Your task to perform on an android device: clear history in the chrome app Image 0: 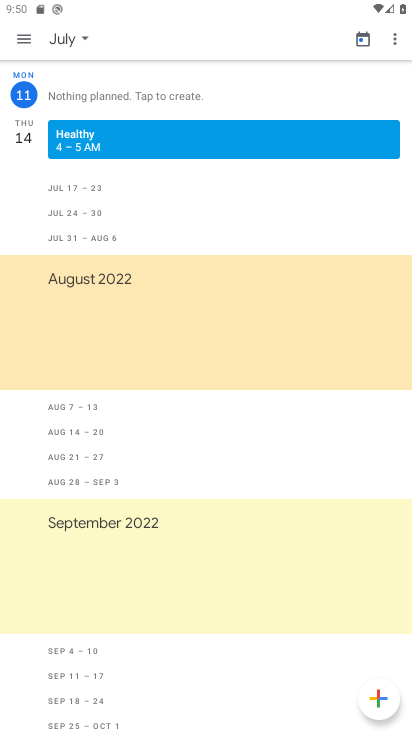
Step 0: press home button
Your task to perform on an android device: clear history in the chrome app Image 1: 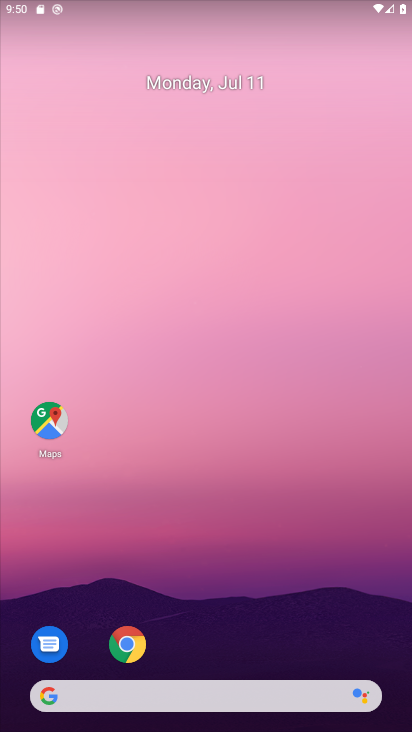
Step 1: drag from (283, 620) to (387, 79)
Your task to perform on an android device: clear history in the chrome app Image 2: 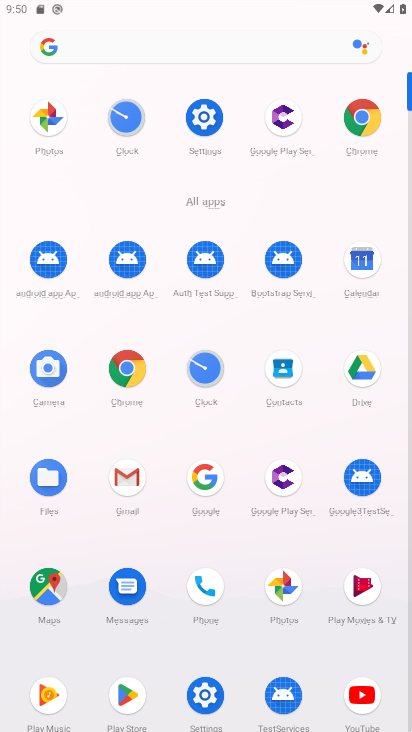
Step 2: click (122, 371)
Your task to perform on an android device: clear history in the chrome app Image 3: 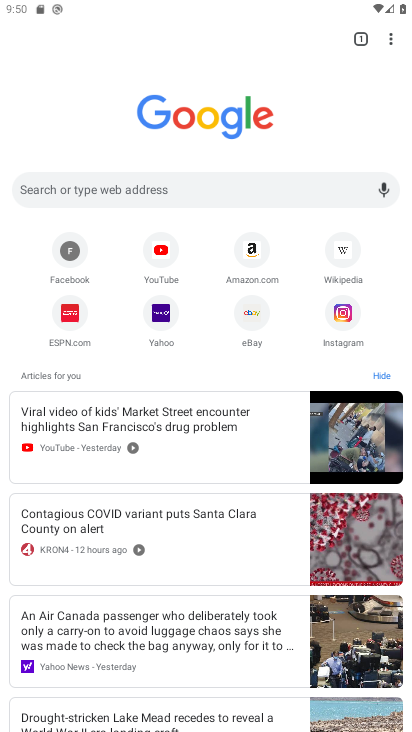
Step 3: drag from (387, 32) to (243, 215)
Your task to perform on an android device: clear history in the chrome app Image 4: 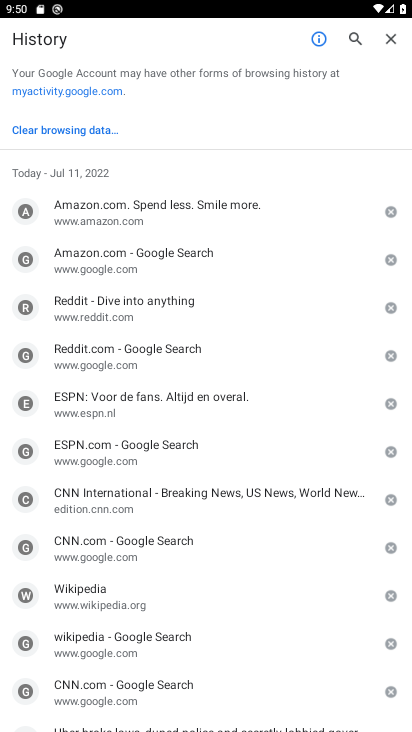
Step 4: click (389, 205)
Your task to perform on an android device: clear history in the chrome app Image 5: 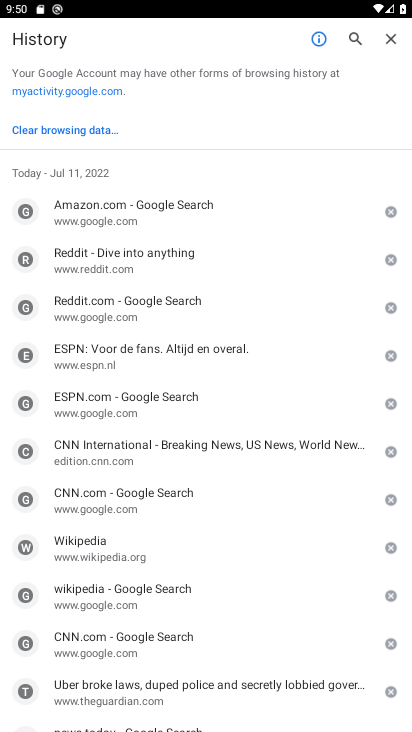
Step 5: click (389, 205)
Your task to perform on an android device: clear history in the chrome app Image 6: 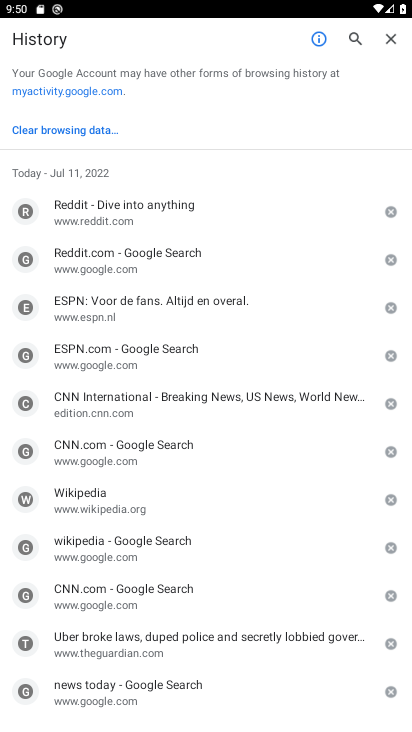
Step 6: click (389, 205)
Your task to perform on an android device: clear history in the chrome app Image 7: 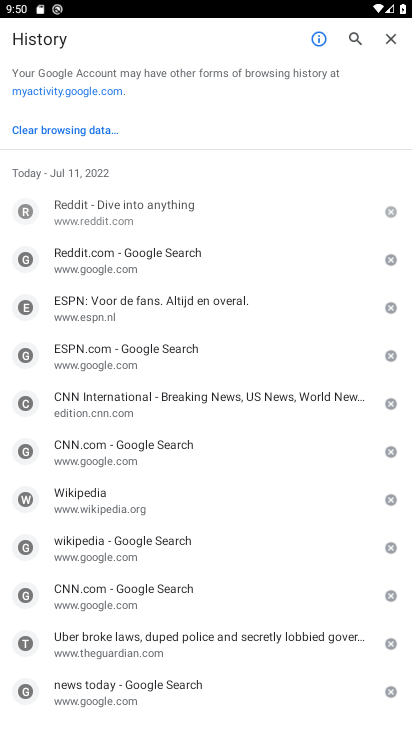
Step 7: click (389, 205)
Your task to perform on an android device: clear history in the chrome app Image 8: 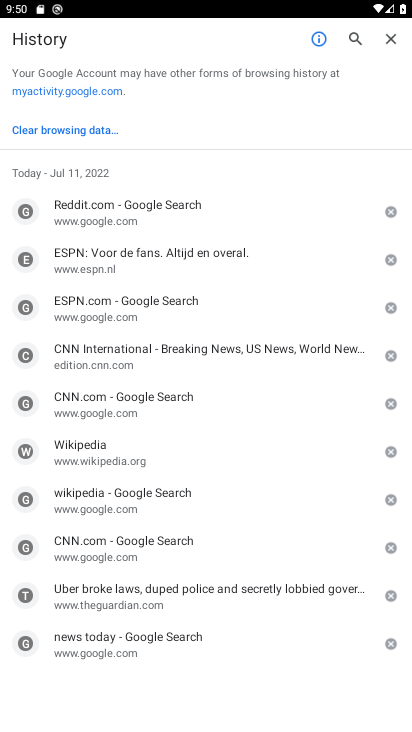
Step 8: click (389, 205)
Your task to perform on an android device: clear history in the chrome app Image 9: 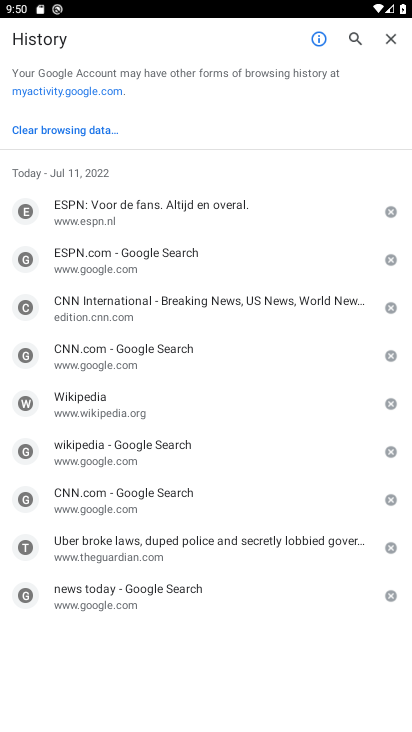
Step 9: click (389, 205)
Your task to perform on an android device: clear history in the chrome app Image 10: 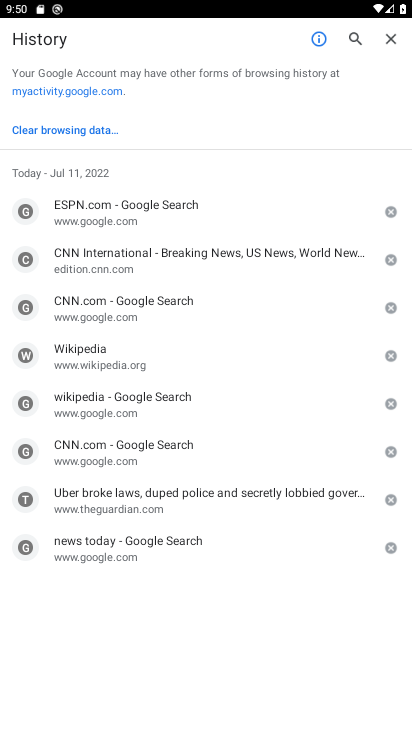
Step 10: click (389, 205)
Your task to perform on an android device: clear history in the chrome app Image 11: 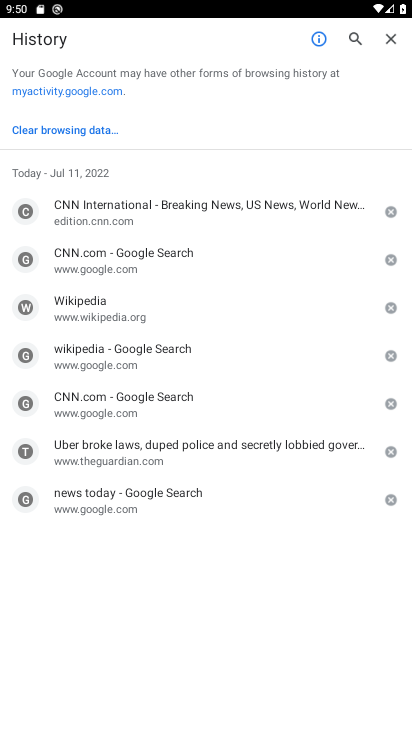
Step 11: click (389, 205)
Your task to perform on an android device: clear history in the chrome app Image 12: 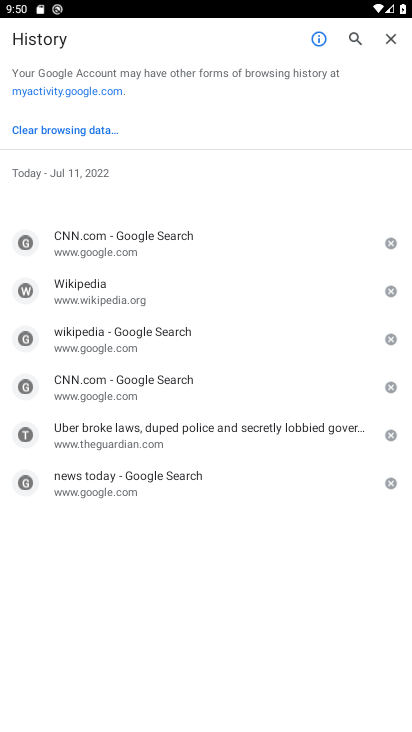
Step 12: click (389, 205)
Your task to perform on an android device: clear history in the chrome app Image 13: 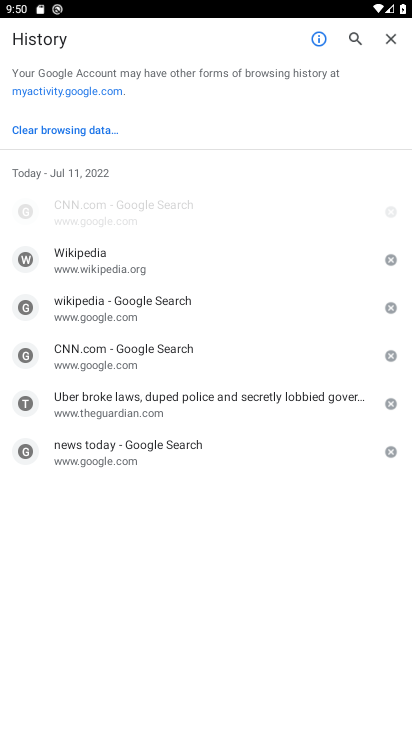
Step 13: click (389, 205)
Your task to perform on an android device: clear history in the chrome app Image 14: 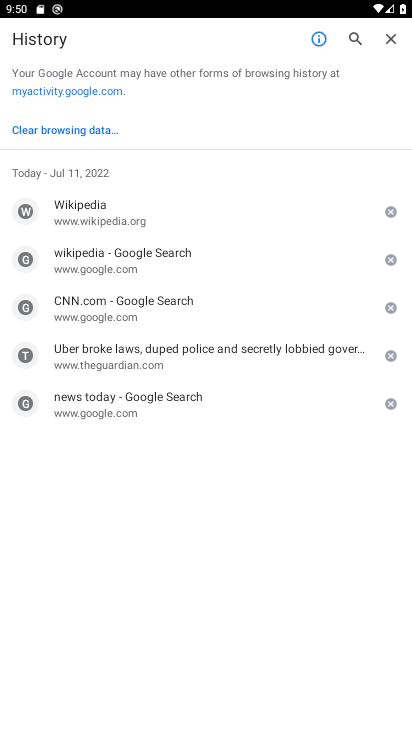
Step 14: click (389, 205)
Your task to perform on an android device: clear history in the chrome app Image 15: 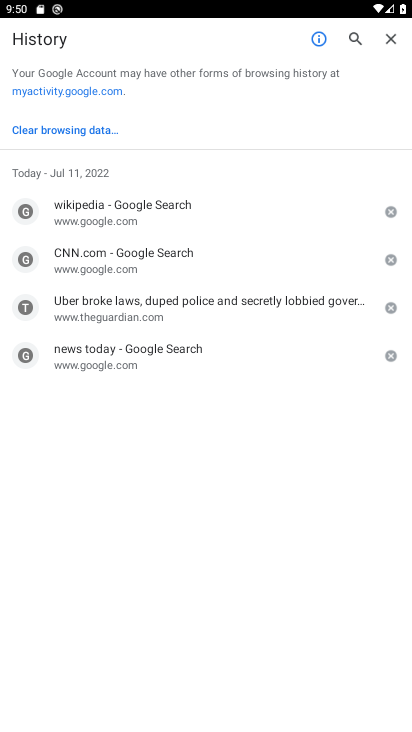
Step 15: click (389, 205)
Your task to perform on an android device: clear history in the chrome app Image 16: 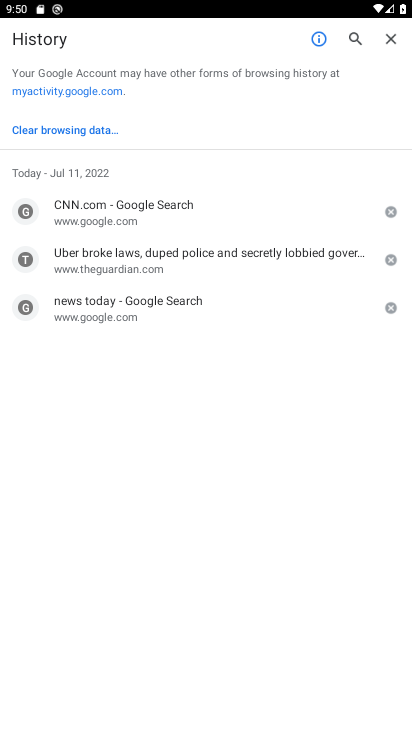
Step 16: click (389, 205)
Your task to perform on an android device: clear history in the chrome app Image 17: 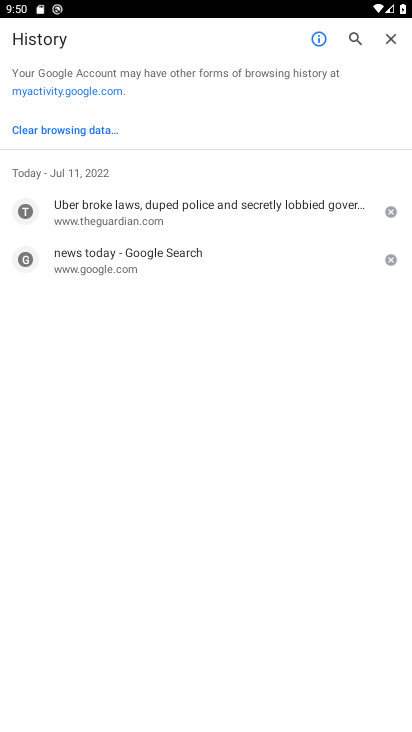
Step 17: click (389, 205)
Your task to perform on an android device: clear history in the chrome app Image 18: 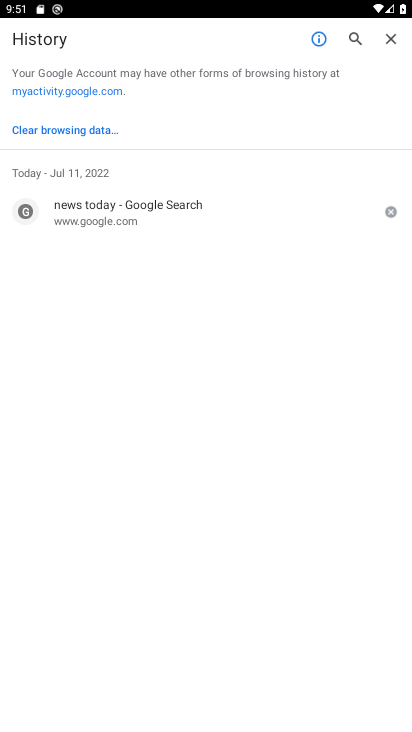
Step 18: click (389, 205)
Your task to perform on an android device: clear history in the chrome app Image 19: 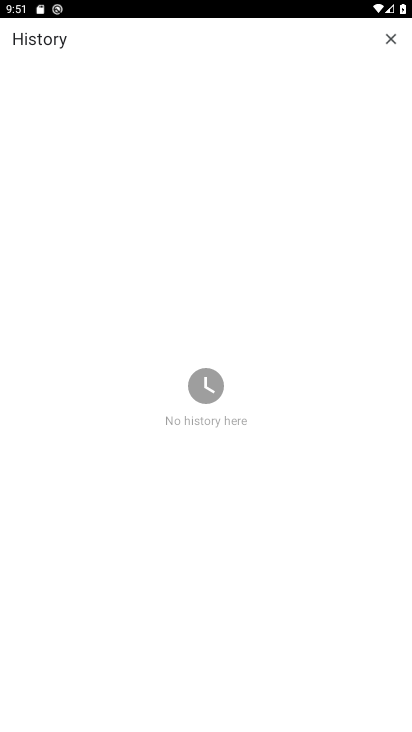
Step 19: click (389, 205)
Your task to perform on an android device: clear history in the chrome app Image 20: 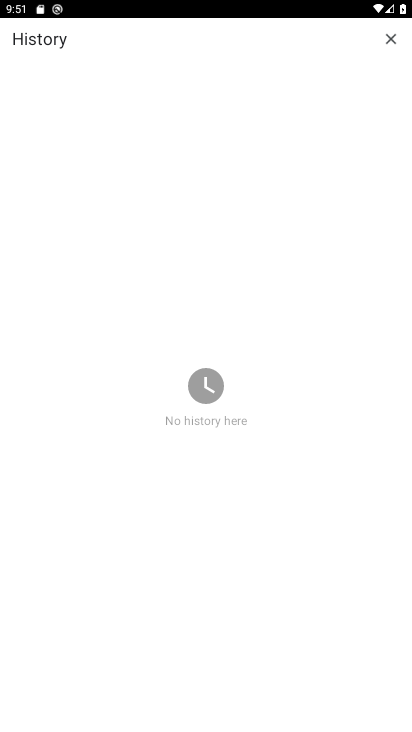
Step 20: task complete